Your task to perform on an android device: turn on the 24-hour format for clock Image 0: 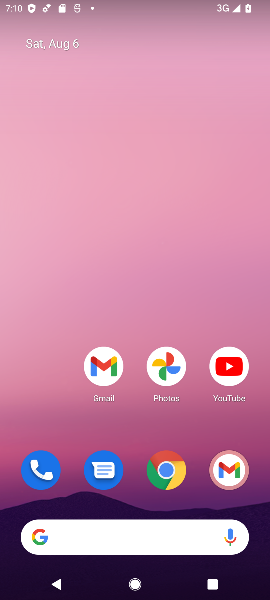
Step 0: drag from (52, 397) to (92, 166)
Your task to perform on an android device: turn on the 24-hour format for clock Image 1: 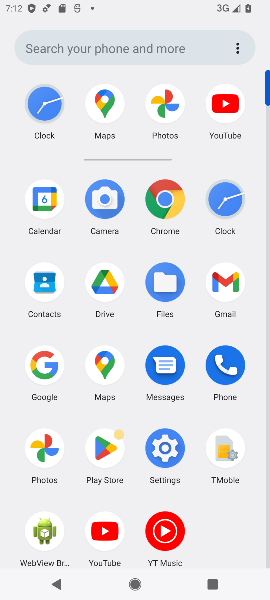
Step 1: click (237, 210)
Your task to perform on an android device: turn on the 24-hour format for clock Image 2: 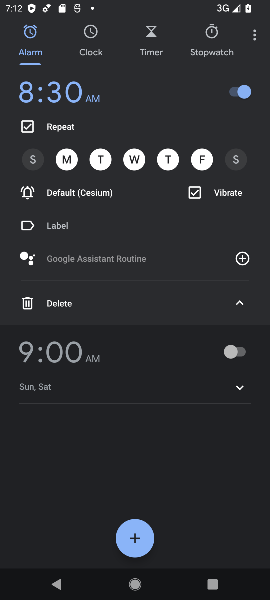
Step 2: click (252, 38)
Your task to perform on an android device: turn on the 24-hour format for clock Image 3: 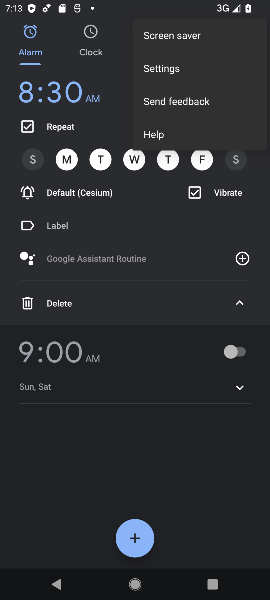
Step 3: click (174, 64)
Your task to perform on an android device: turn on the 24-hour format for clock Image 4: 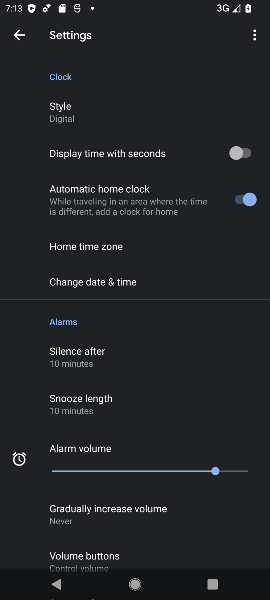
Step 4: click (85, 284)
Your task to perform on an android device: turn on the 24-hour format for clock Image 5: 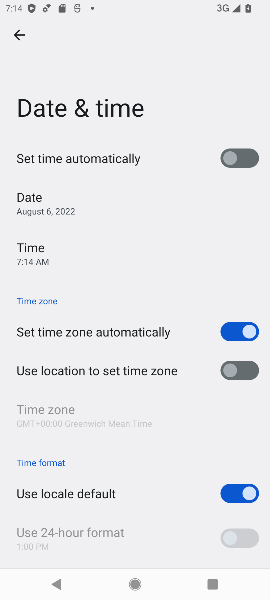
Step 5: click (186, 493)
Your task to perform on an android device: turn on the 24-hour format for clock Image 6: 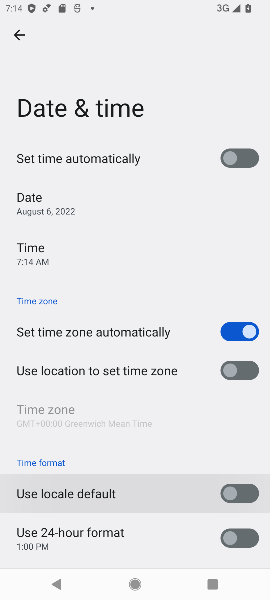
Step 6: click (192, 534)
Your task to perform on an android device: turn on the 24-hour format for clock Image 7: 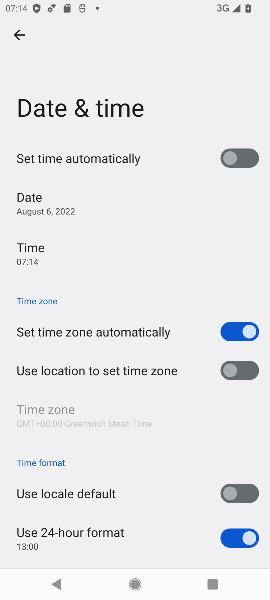
Step 7: task complete